Your task to perform on an android device: What's a good restaurant in Las Vegas? Image 0: 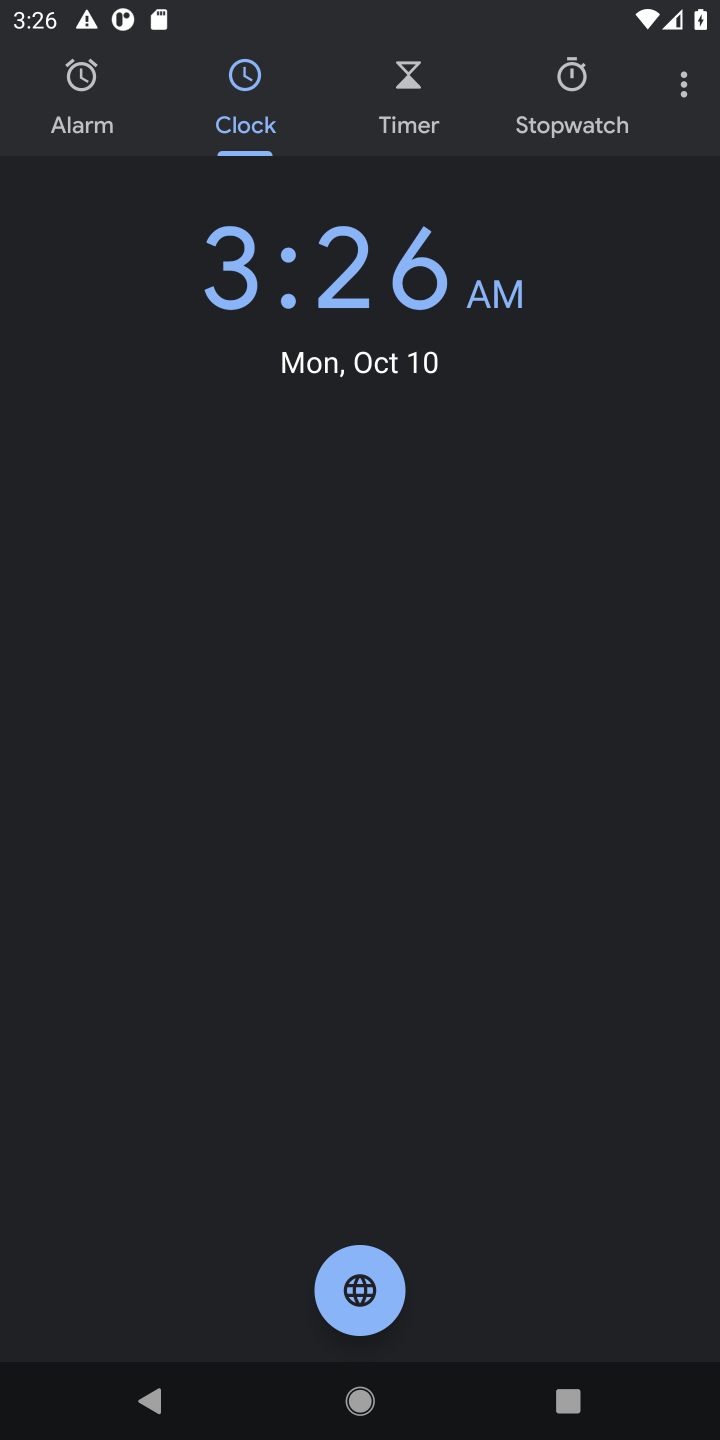
Step 0: press home button
Your task to perform on an android device: What's a good restaurant in Las Vegas? Image 1: 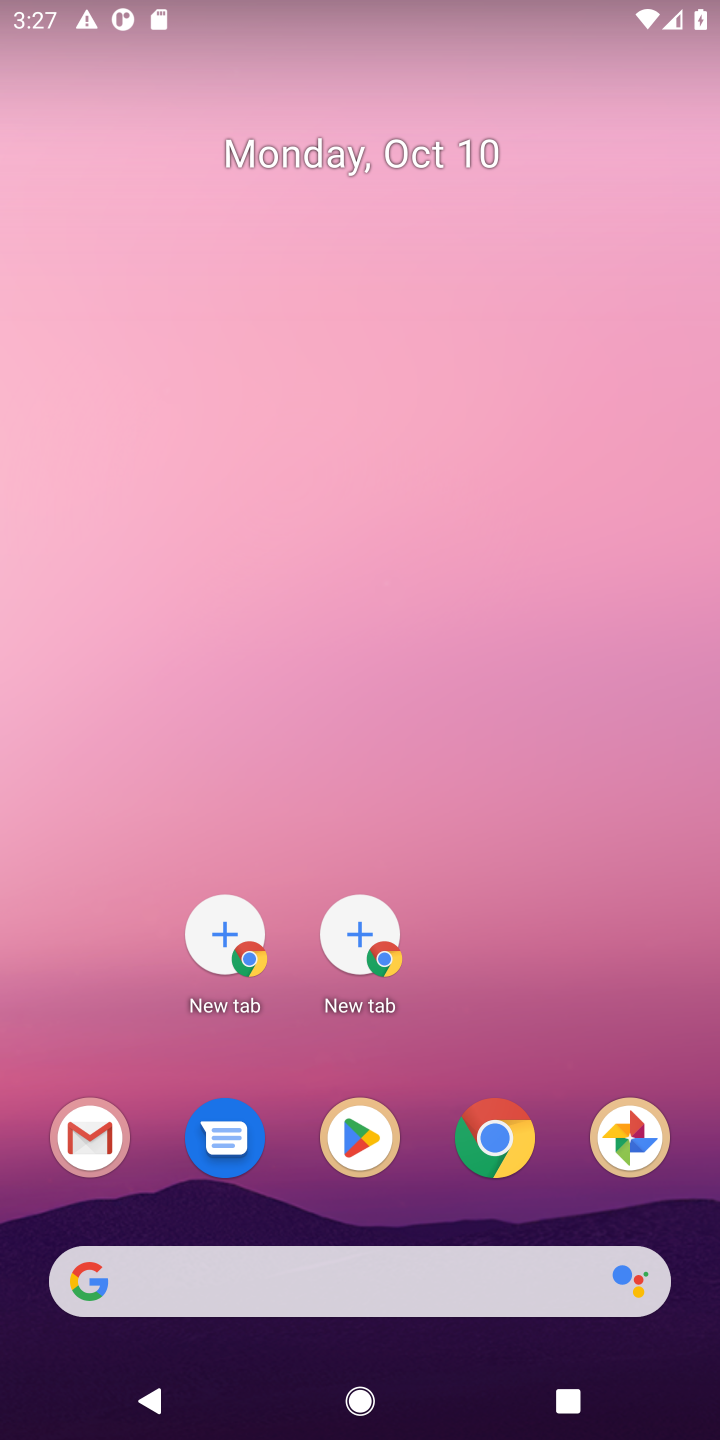
Step 1: click (514, 1156)
Your task to perform on an android device: What's a good restaurant in Las Vegas? Image 2: 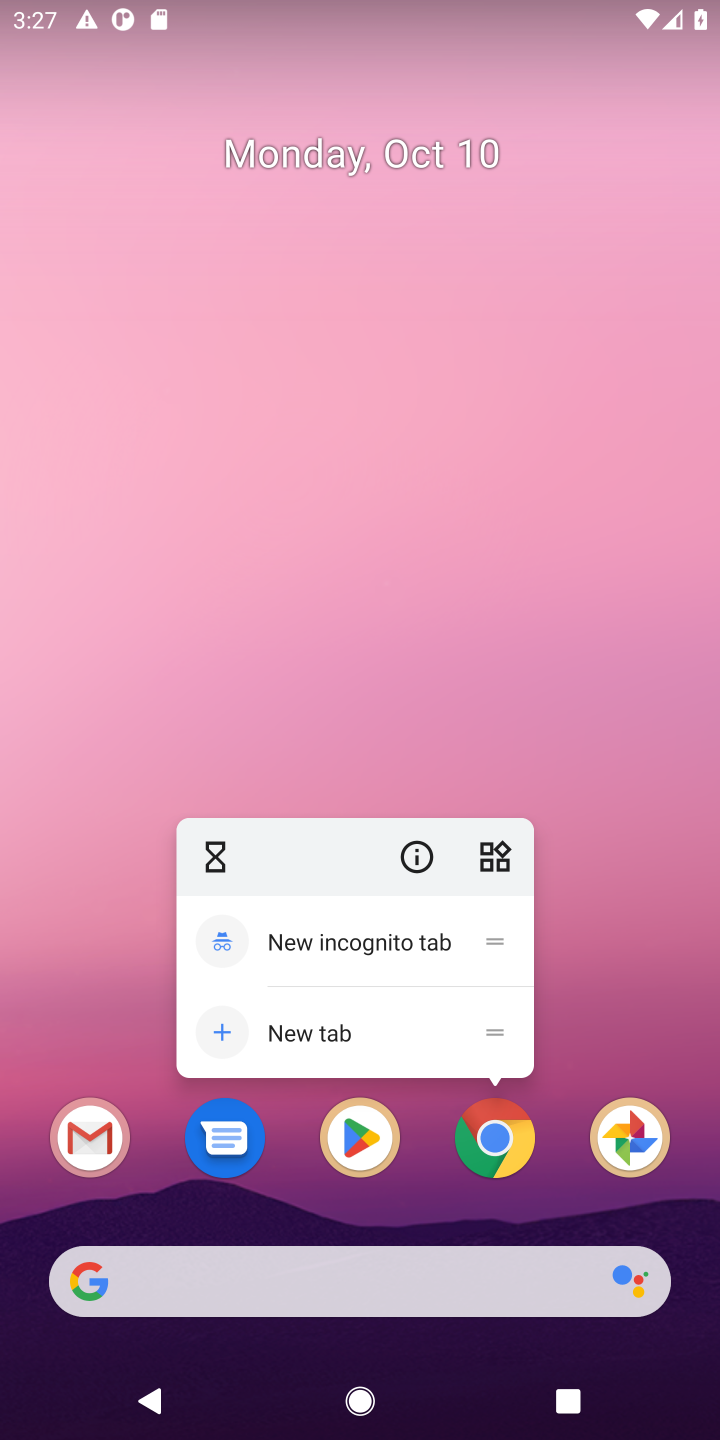
Step 2: click (518, 1169)
Your task to perform on an android device: What's a good restaurant in Las Vegas? Image 3: 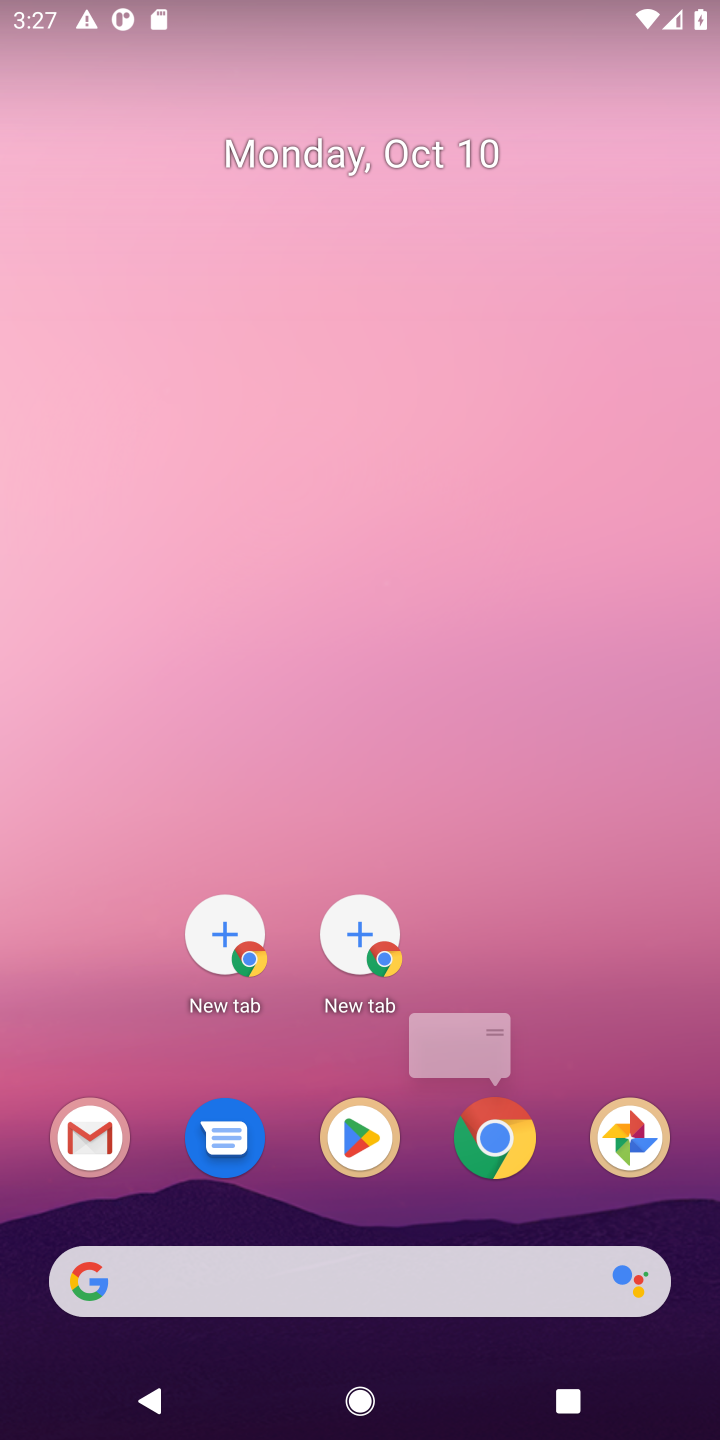
Step 3: click (507, 1166)
Your task to perform on an android device: What's a good restaurant in Las Vegas? Image 4: 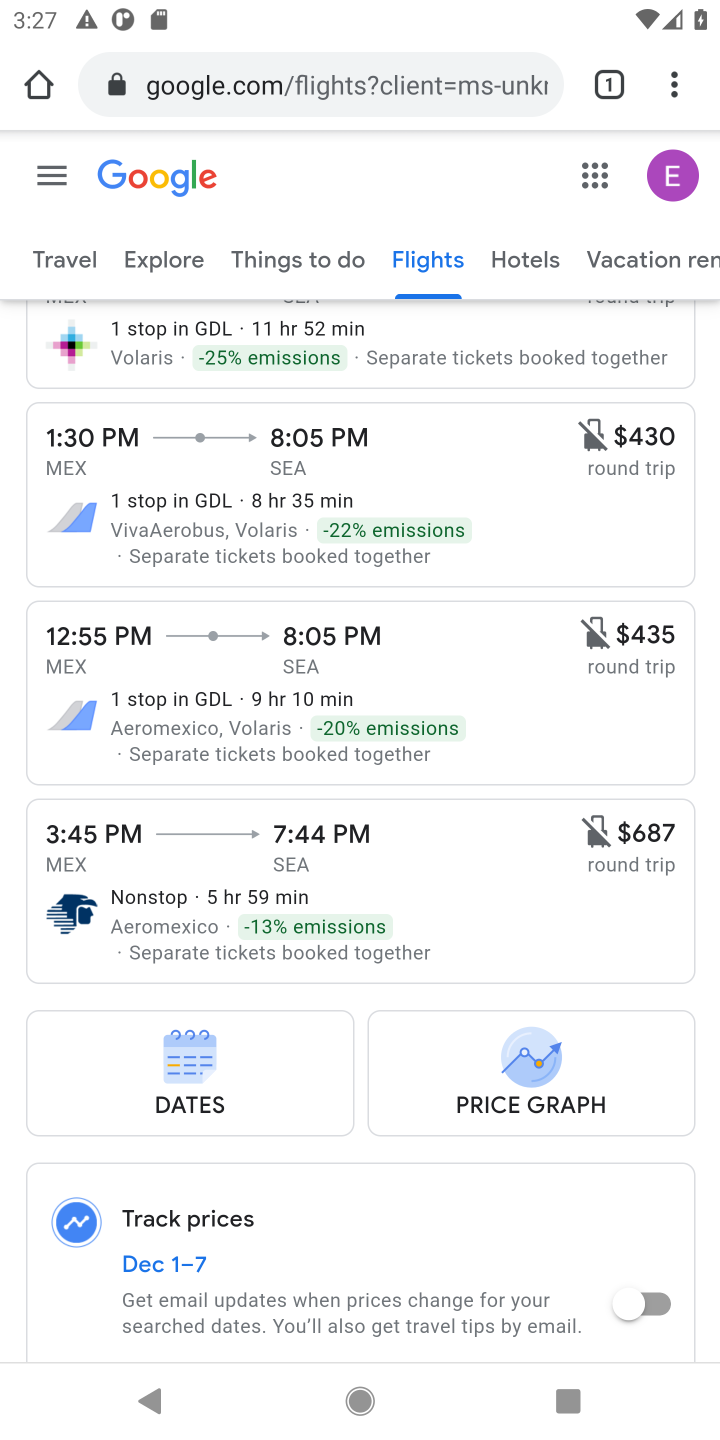
Step 4: click (299, 93)
Your task to perform on an android device: What's a good restaurant in Las Vegas? Image 5: 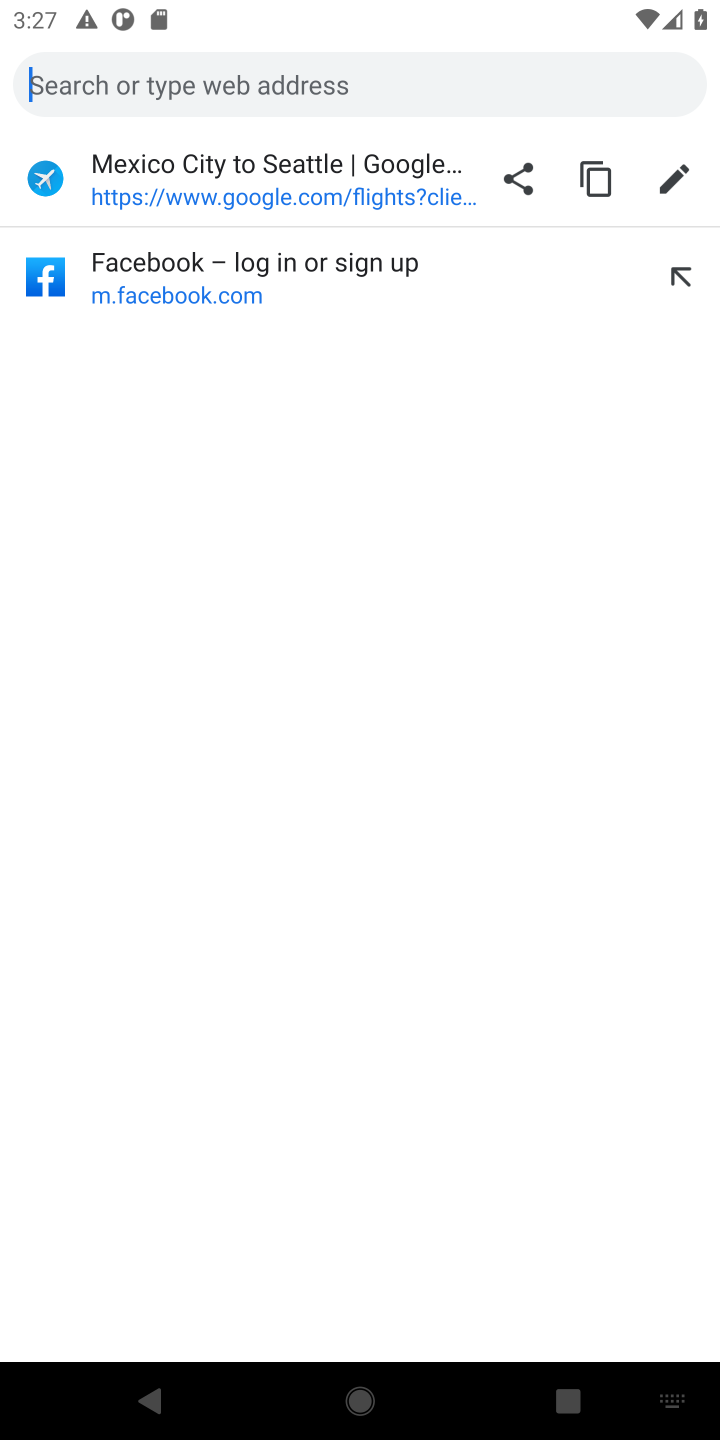
Step 5: type "good restaurant in Las Vegas"
Your task to perform on an android device: What's a good restaurant in Las Vegas? Image 6: 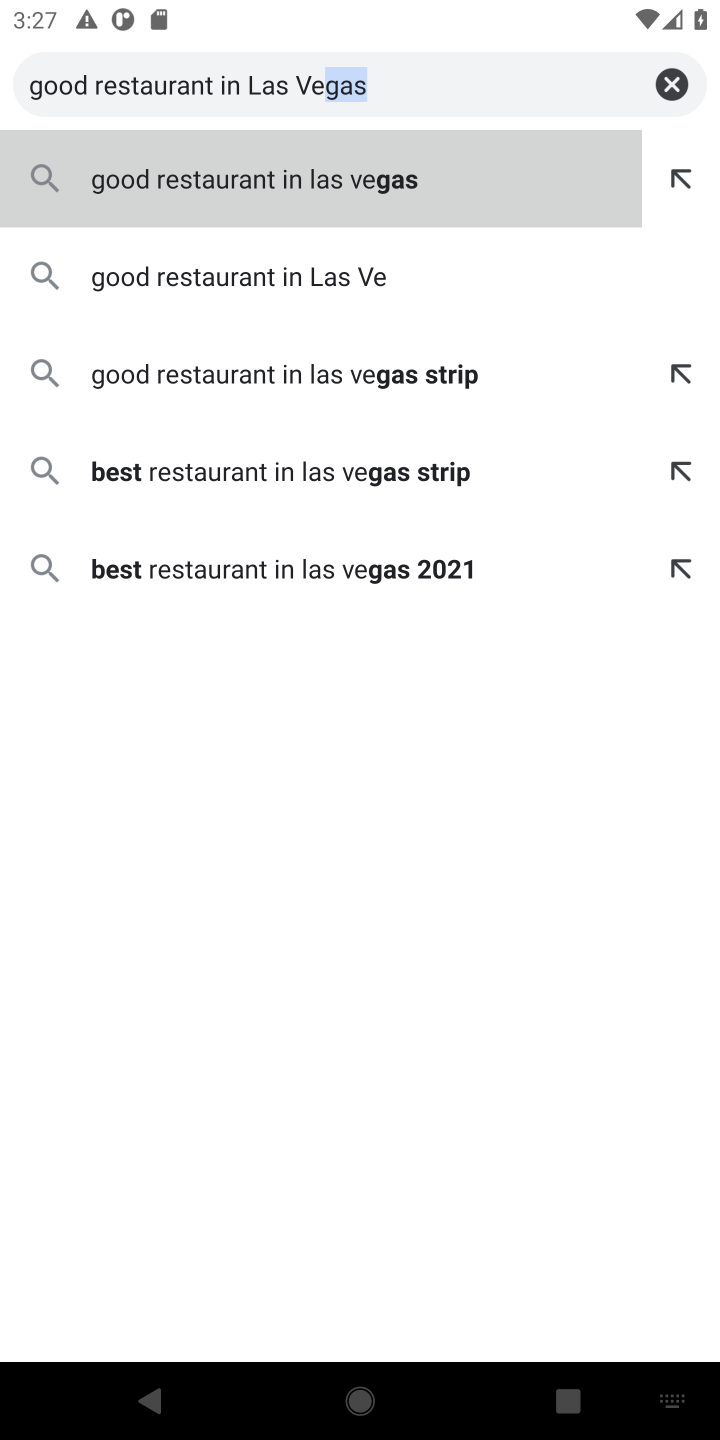
Step 6: click (502, 156)
Your task to perform on an android device: What's a good restaurant in Las Vegas? Image 7: 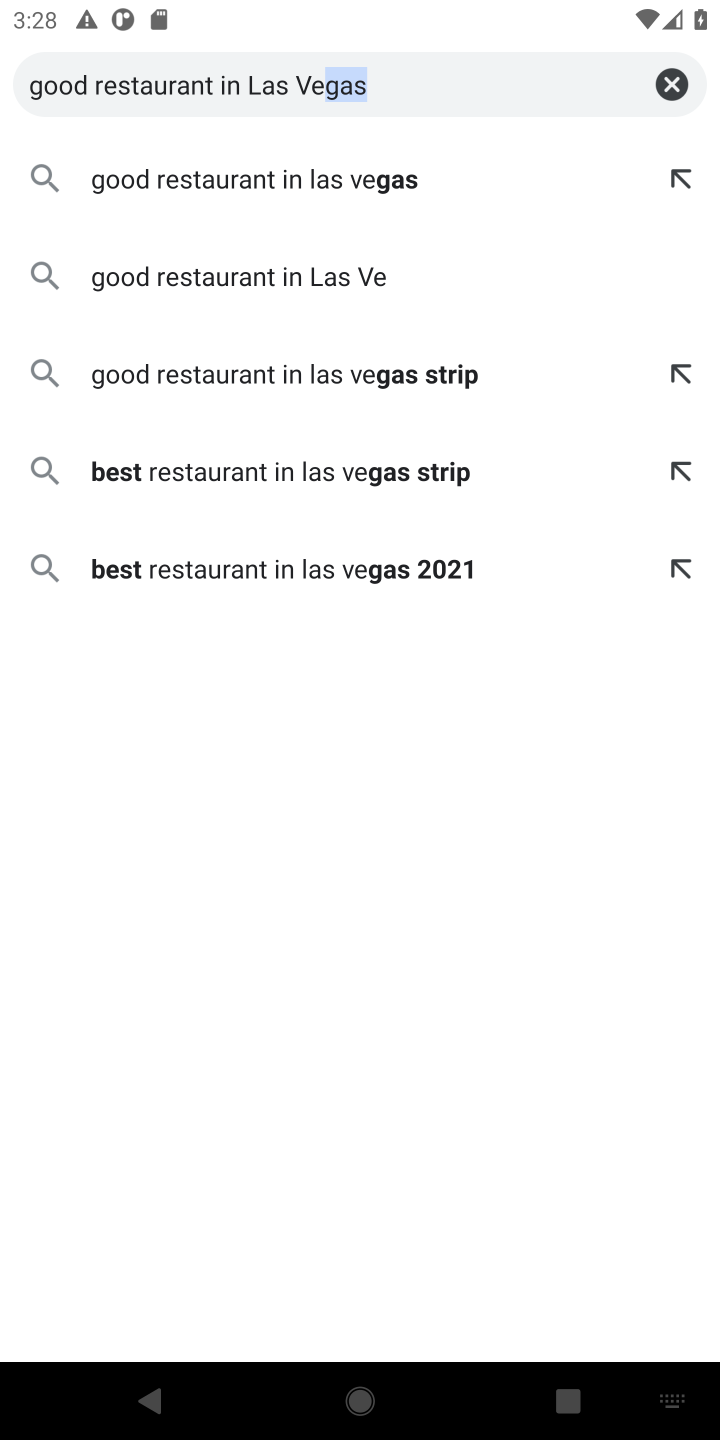
Step 7: click (459, 94)
Your task to perform on an android device: What's a good restaurant in Las Vegas? Image 8: 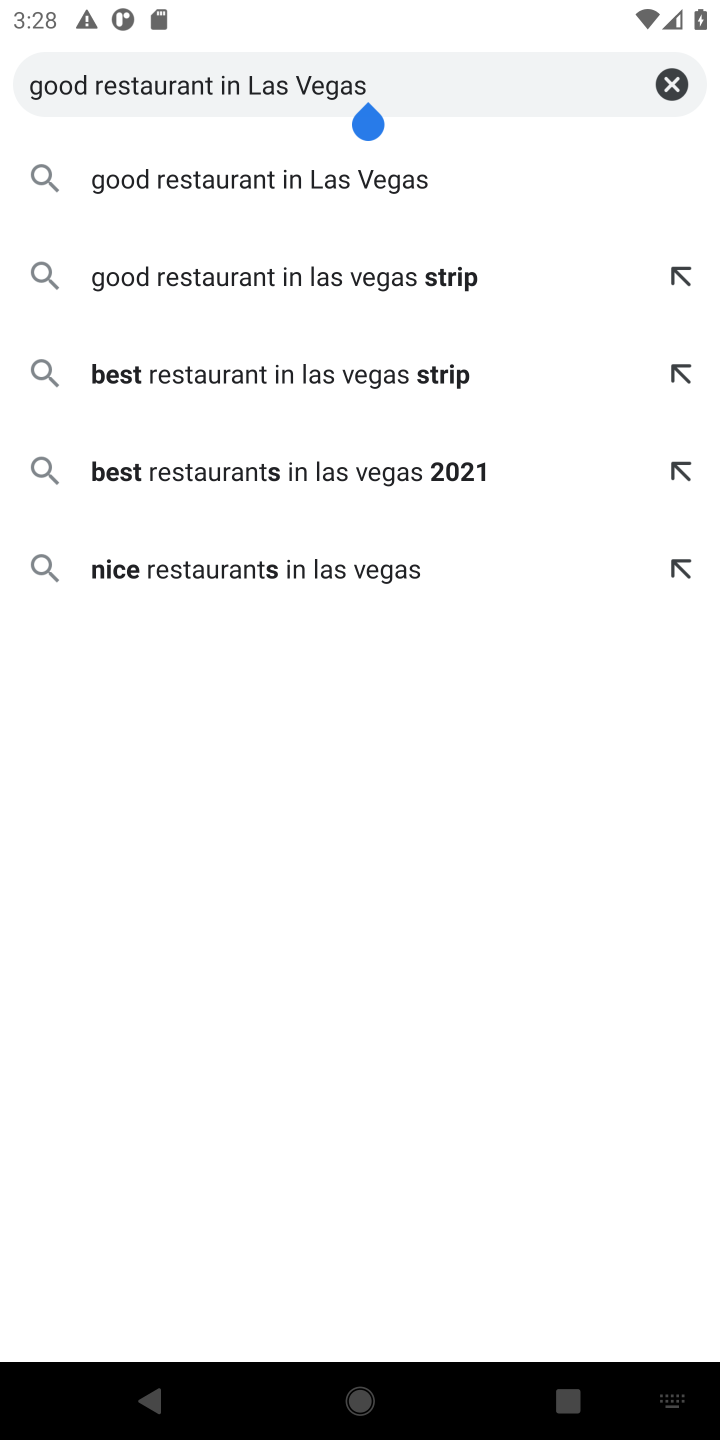
Step 8: press enter
Your task to perform on an android device: What's a good restaurant in Las Vegas? Image 9: 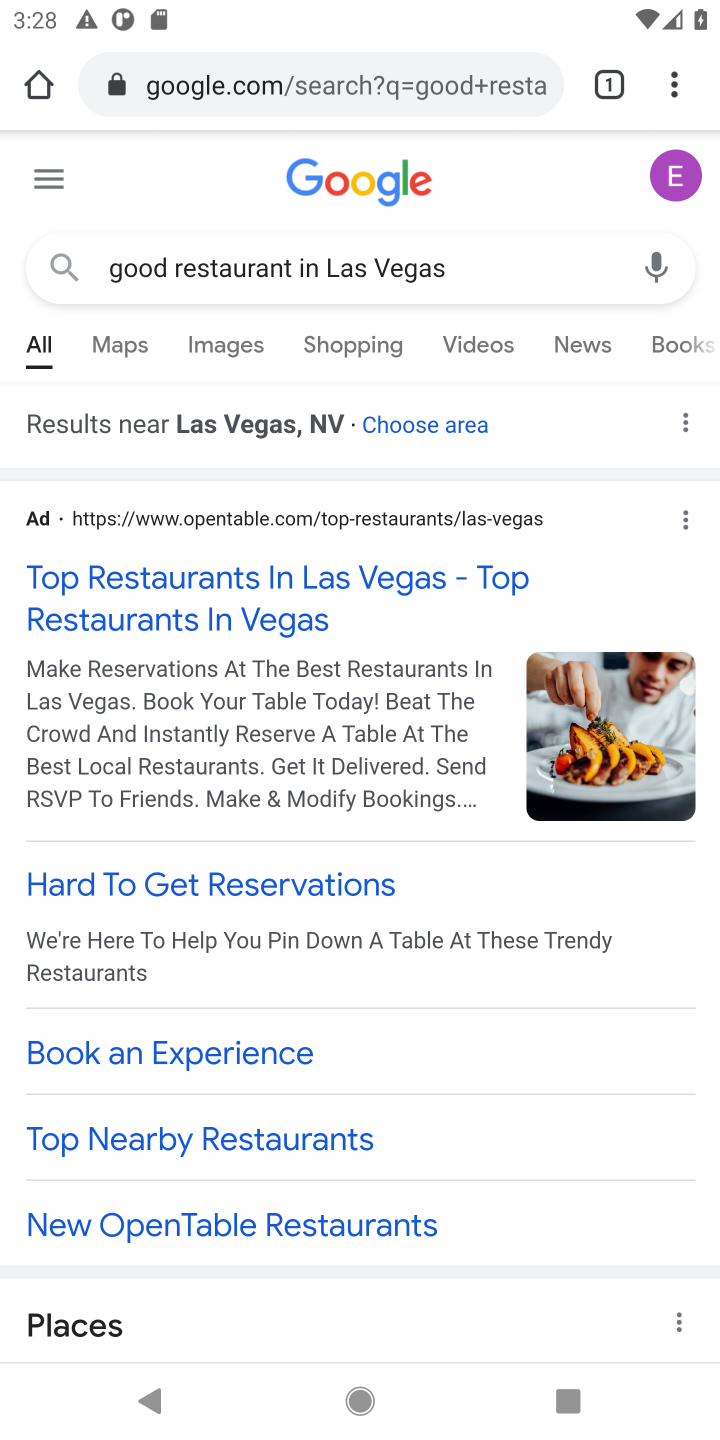
Step 9: click (218, 611)
Your task to perform on an android device: What's a good restaurant in Las Vegas? Image 10: 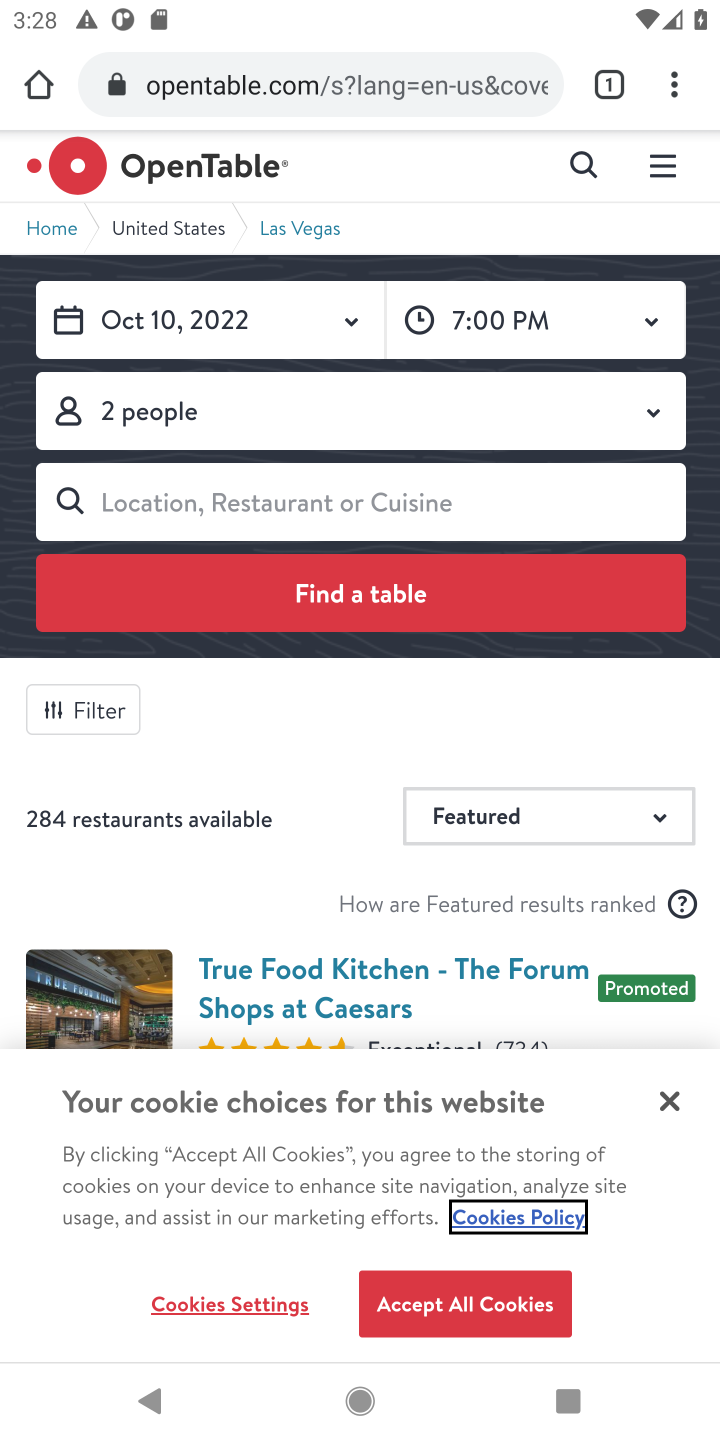
Step 10: drag from (463, 1108) to (511, 537)
Your task to perform on an android device: What's a good restaurant in Las Vegas? Image 11: 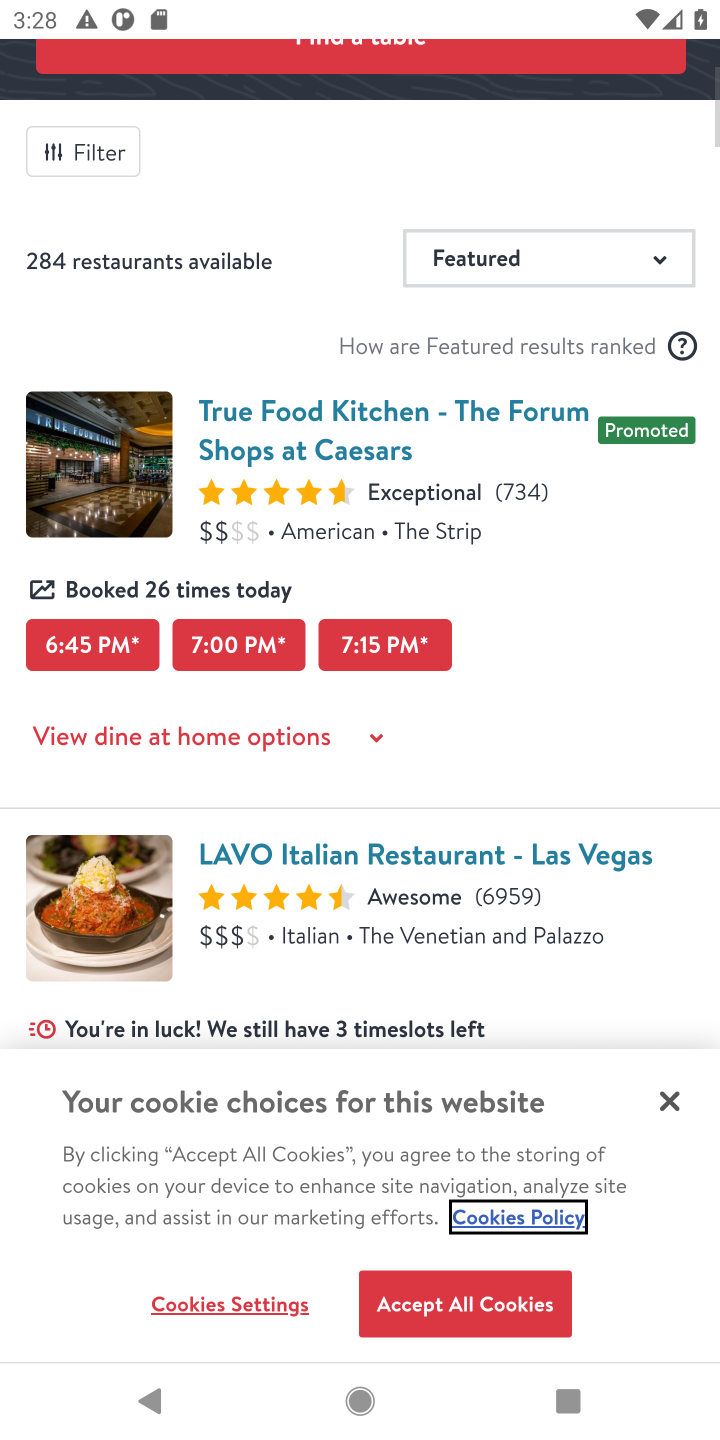
Step 11: click (467, 1268)
Your task to perform on an android device: What's a good restaurant in Las Vegas? Image 12: 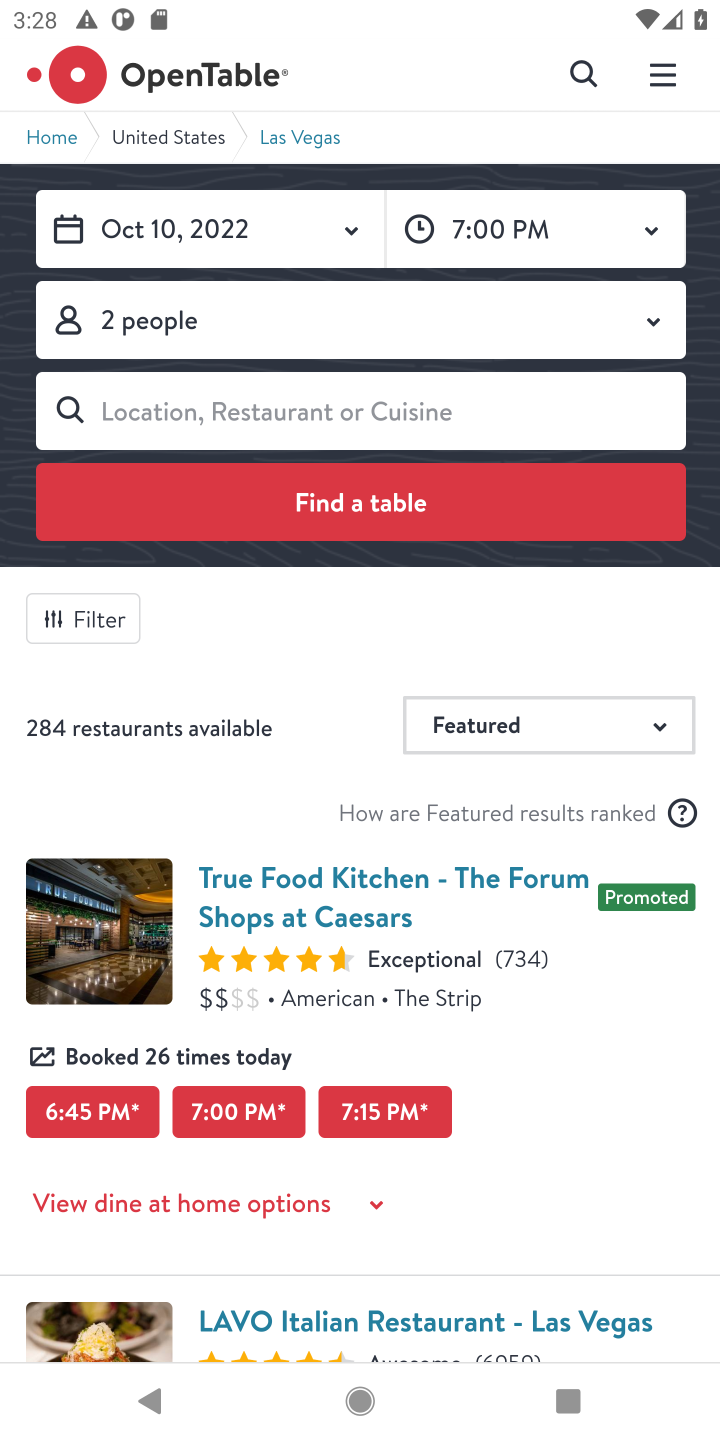
Step 12: task complete